Your task to perform on an android device: What's the weather today? Image 0: 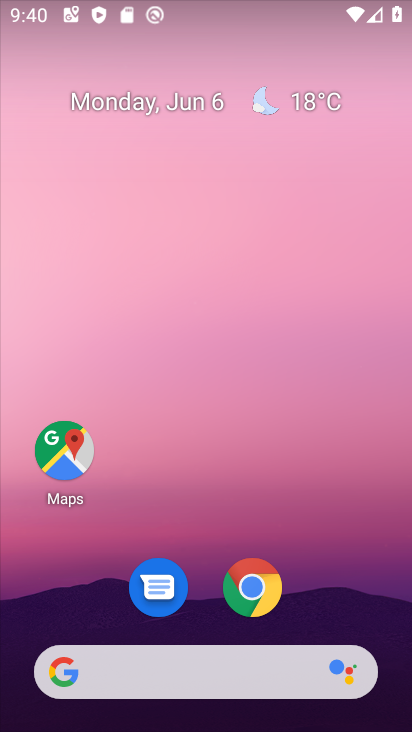
Step 0: click (207, 665)
Your task to perform on an android device: What's the weather today? Image 1: 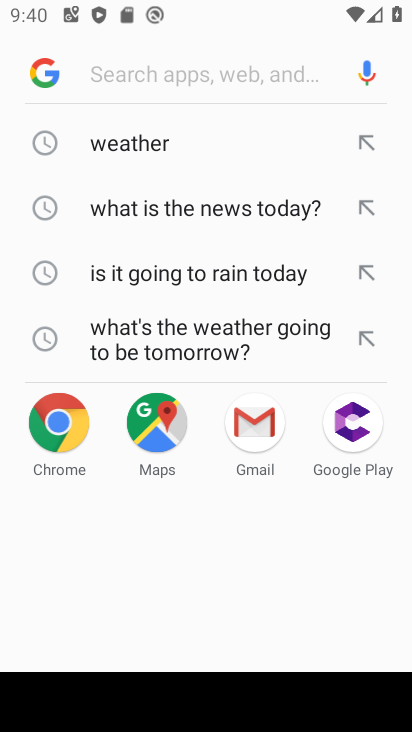
Step 1: click (137, 139)
Your task to perform on an android device: What's the weather today? Image 2: 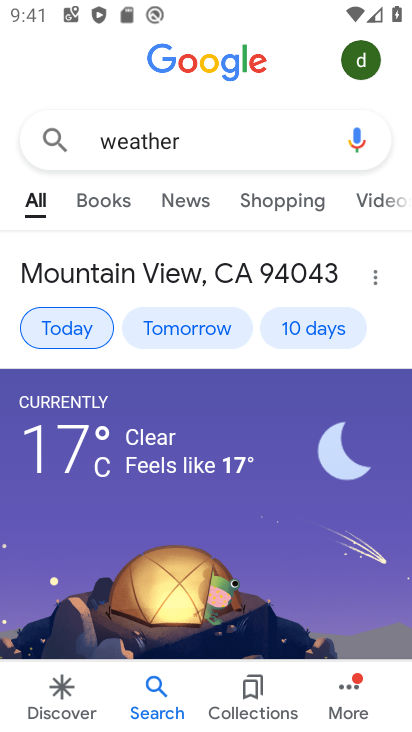
Step 2: task complete